Your task to perform on an android device: Open Android settings Image 0: 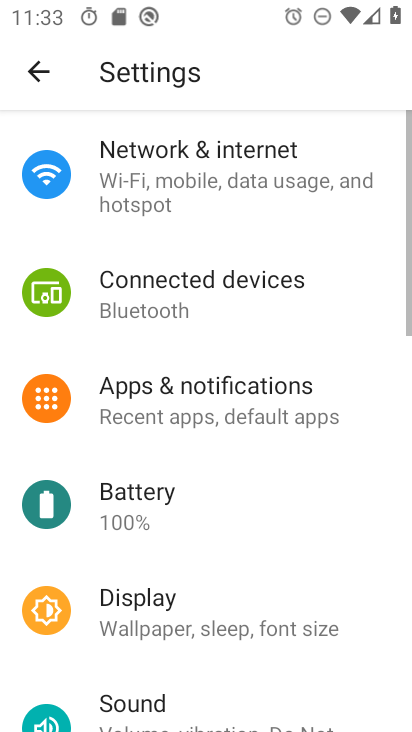
Step 0: press home button
Your task to perform on an android device: Open Android settings Image 1: 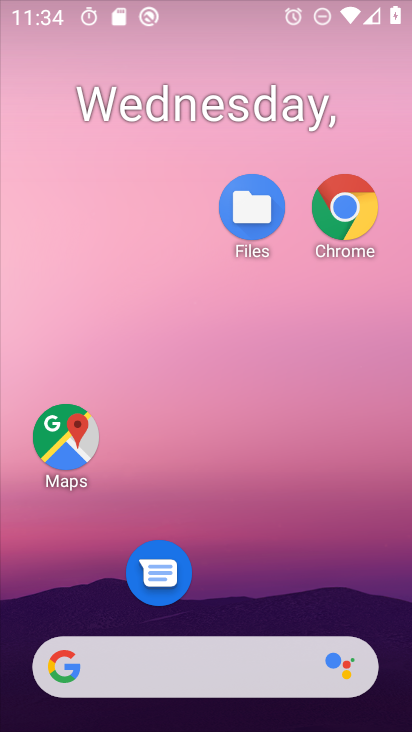
Step 1: drag from (262, 647) to (276, 143)
Your task to perform on an android device: Open Android settings Image 2: 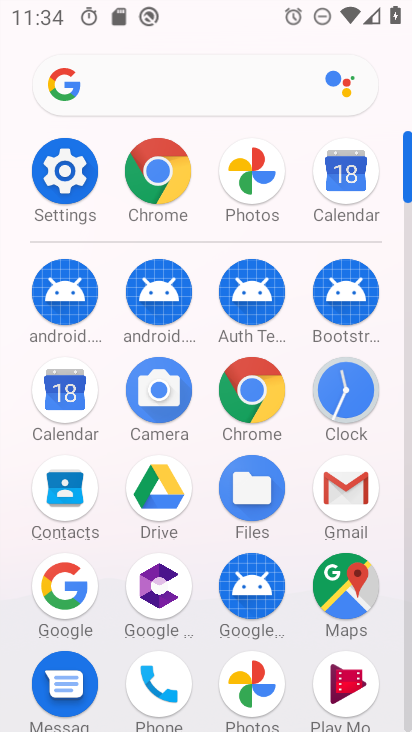
Step 2: click (69, 185)
Your task to perform on an android device: Open Android settings Image 3: 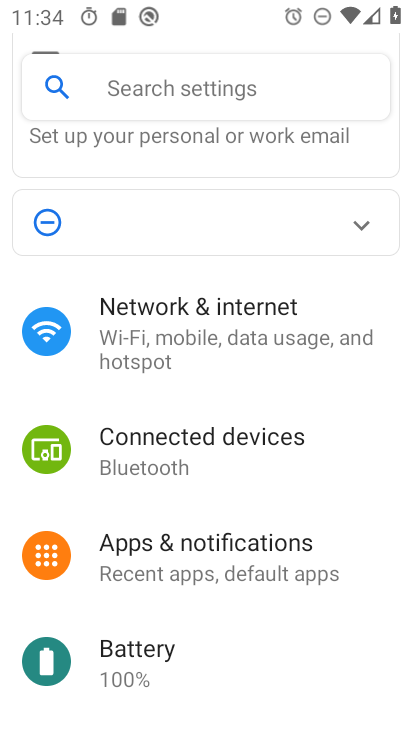
Step 3: drag from (172, 527) to (187, 120)
Your task to perform on an android device: Open Android settings Image 4: 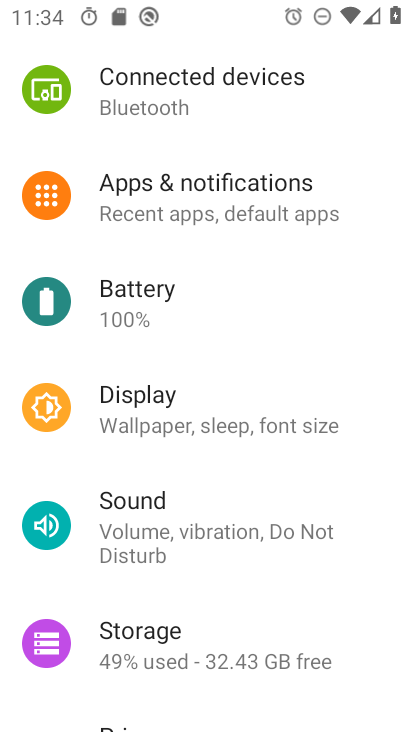
Step 4: drag from (179, 589) to (229, 92)
Your task to perform on an android device: Open Android settings Image 5: 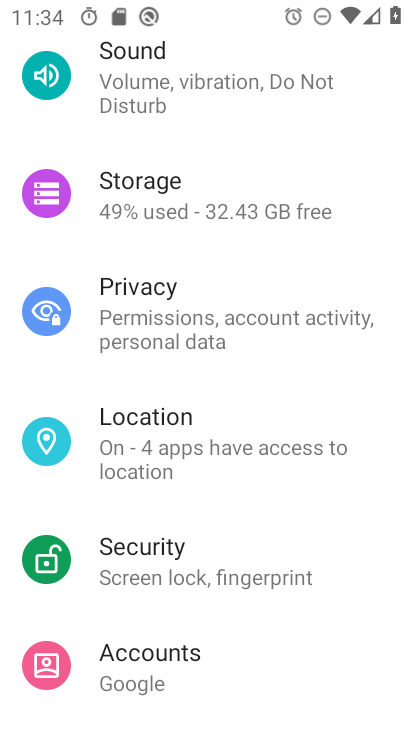
Step 5: drag from (246, 571) to (224, 18)
Your task to perform on an android device: Open Android settings Image 6: 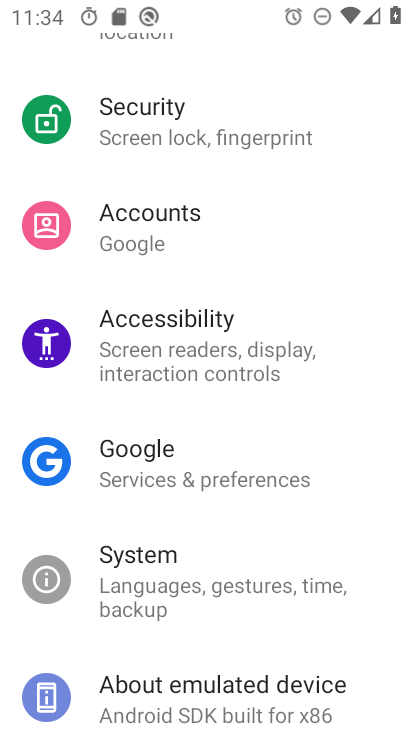
Step 6: drag from (214, 570) to (205, 109)
Your task to perform on an android device: Open Android settings Image 7: 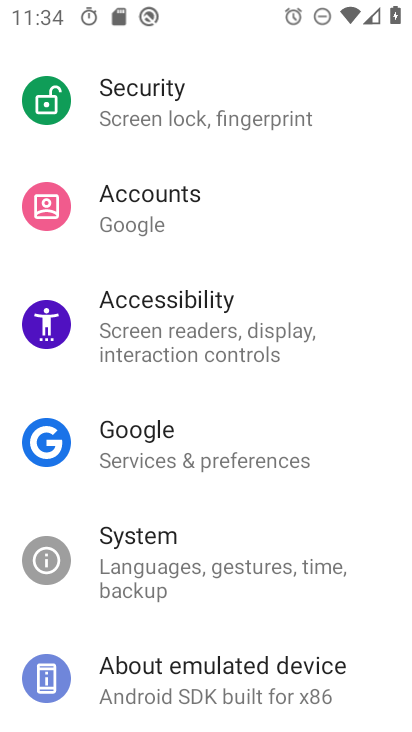
Step 7: click (176, 669)
Your task to perform on an android device: Open Android settings Image 8: 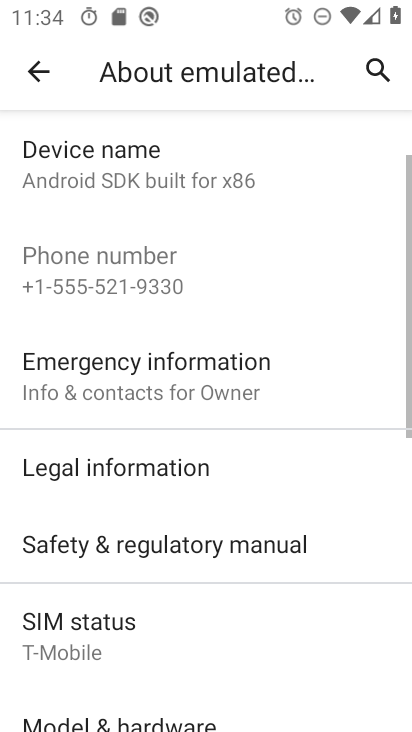
Step 8: drag from (187, 475) to (207, 87)
Your task to perform on an android device: Open Android settings Image 9: 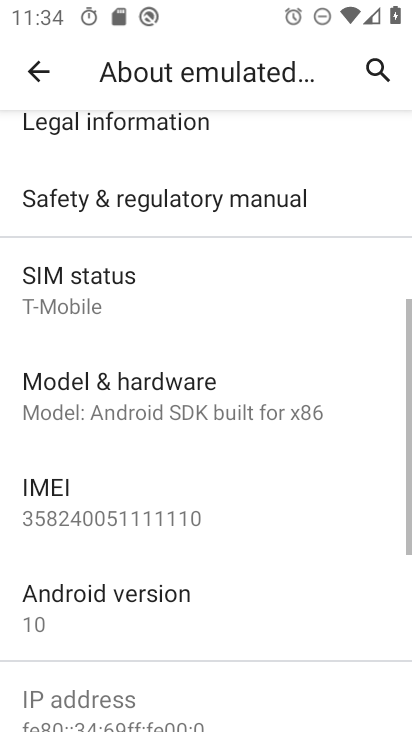
Step 9: click (180, 617)
Your task to perform on an android device: Open Android settings Image 10: 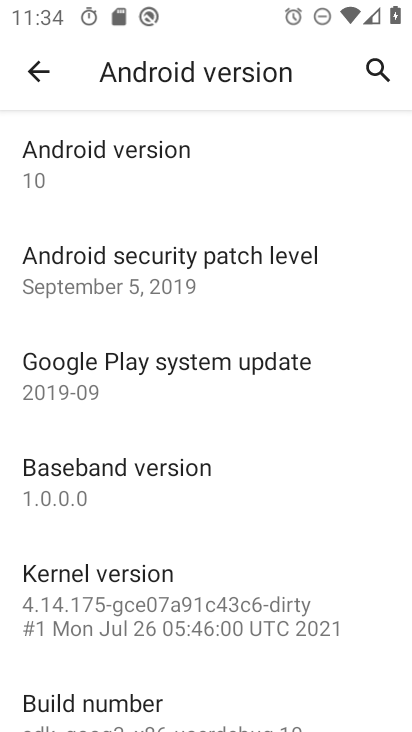
Step 10: task complete